Your task to perform on an android device: Is it going to rain tomorrow? Image 0: 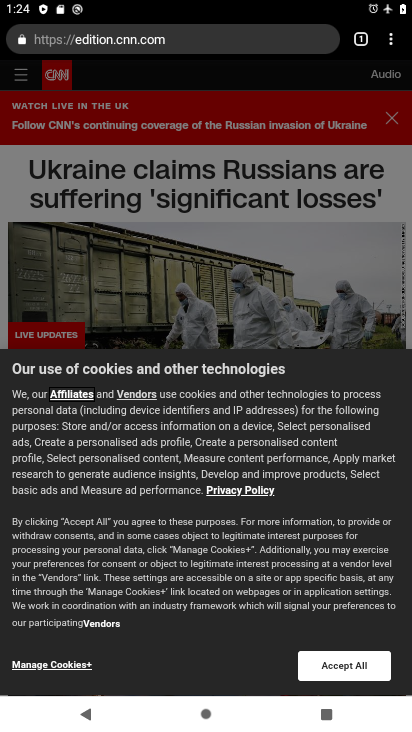
Step 0: press home button
Your task to perform on an android device: Is it going to rain tomorrow? Image 1: 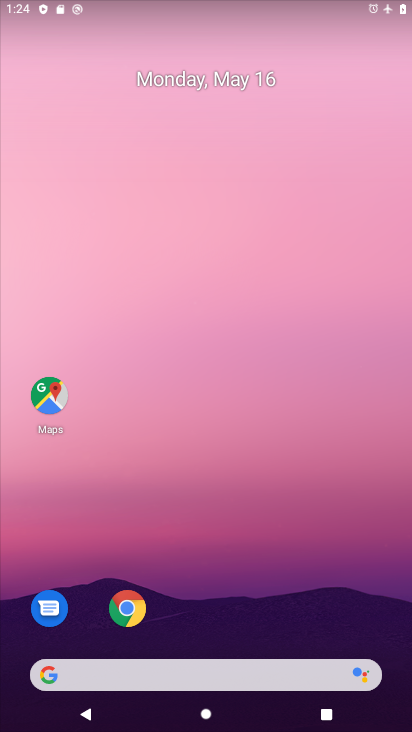
Step 1: click (135, 611)
Your task to perform on an android device: Is it going to rain tomorrow? Image 2: 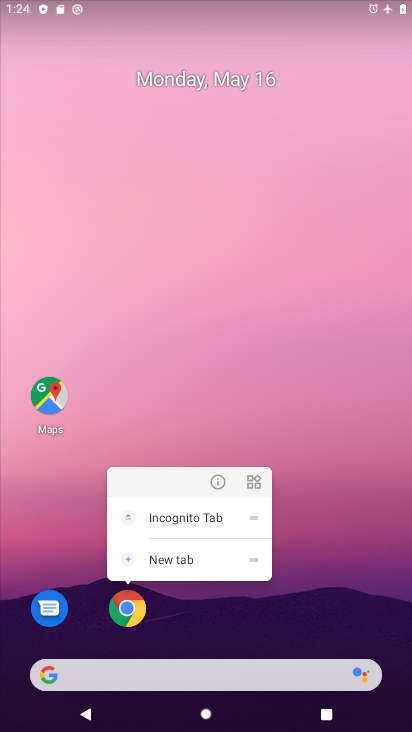
Step 2: click (128, 620)
Your task to perform on an android device: Is it going to rain tomorrow? Image 3: 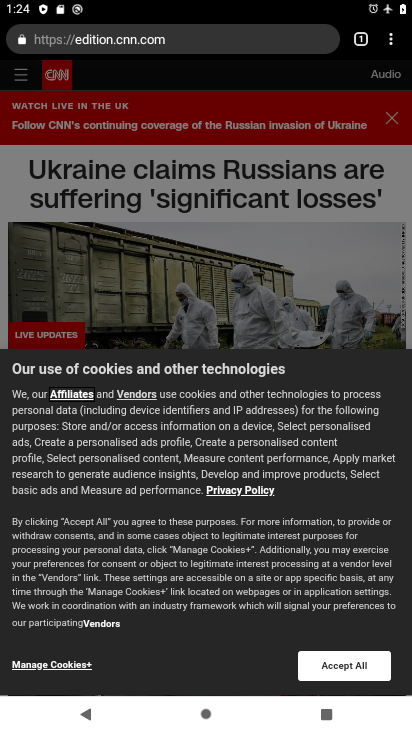
Step 3: click (228, 39)
Your task to perform on an android device: Is it going to rain tomorrow? Image 4: 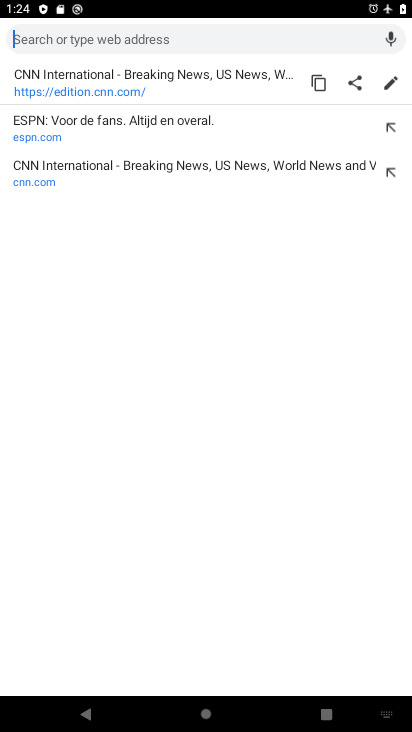
Step 4: type "is it going to rain tomorrow"
Your task to perform on an android device: Is it going to rain tomorrow? Image 5: 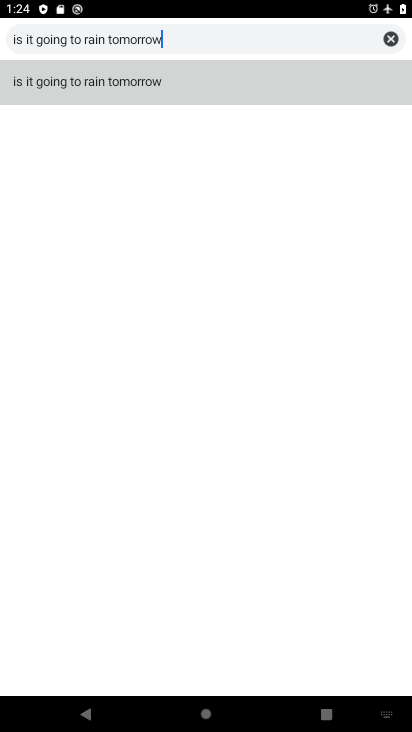
Step 5: click (189, 79)
Your task to perform on an android device: Is it going to rain tomorrow? Image 6: 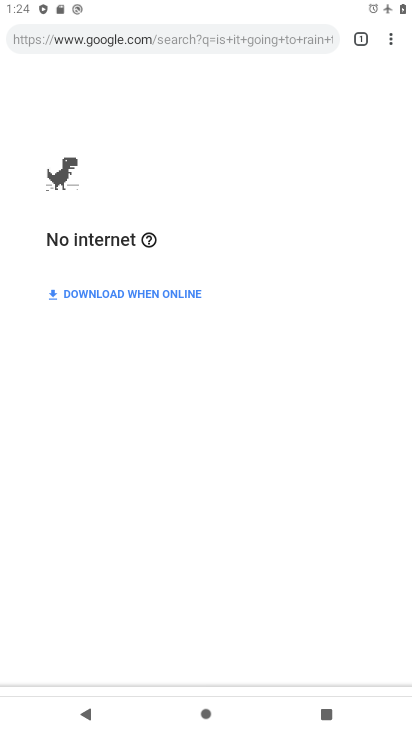
Step 6: task complete